Your task to perform on an android device: toggle show notifications on the lock screen Image 0: 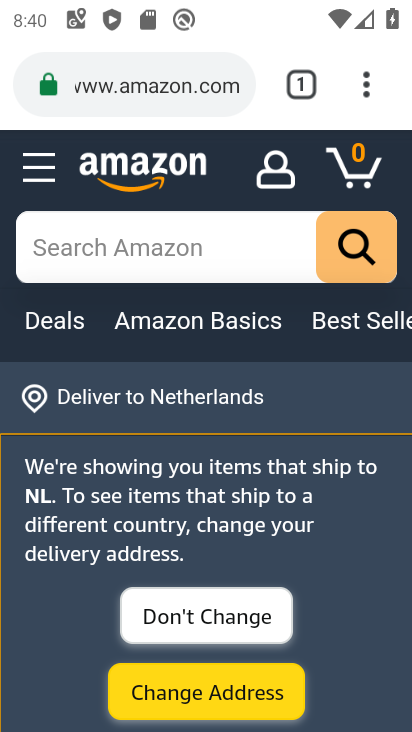
Step 0: press home button
Your task to perform on an android device: toggle show notifications on the lock screen Image 1: 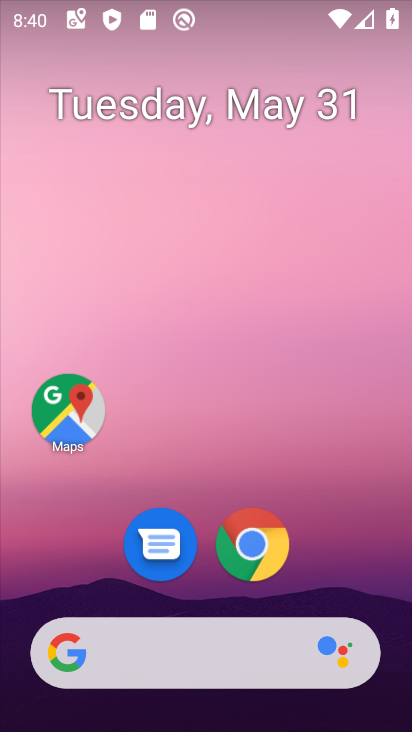
Step 1: drag from (322, 586) to (304, 58)
Your task to perform on an android device: toggle show notifications on the lock screen Image 2: 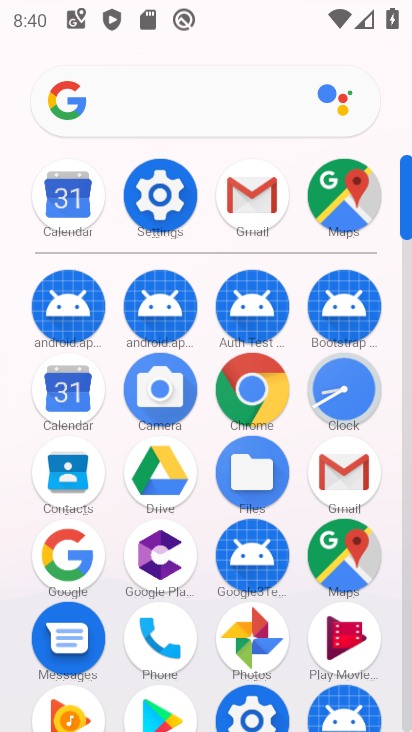
Step 2: click (148, 200)
Your task to perform on an android device: toggle show notifications on the lock screen Image 3: 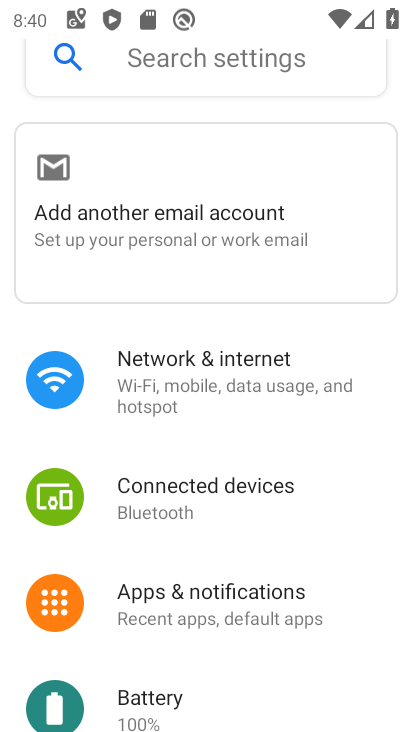
Step 3: click (156, 573)
Your task to perform on an android device: toggle show notifications on the lock screen Image 4: 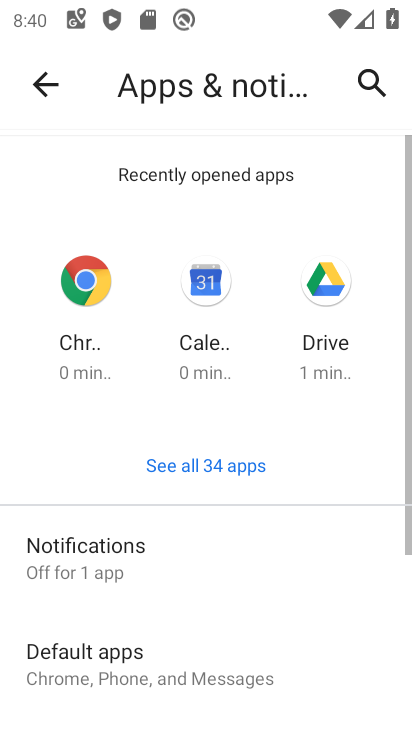
Step 4: click (149, 551)
Your task to perform on an android device: toggle show notifications on the lock screen Image 5: 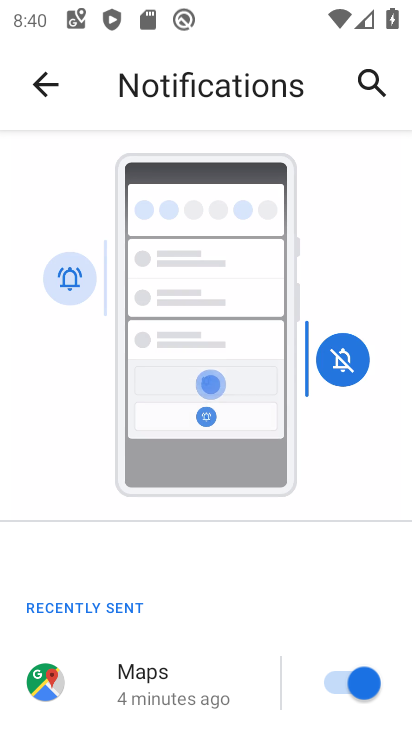
Step 5: drag from (155, 602) to (215, 86)
Your task to perform on an android device: toggle show notifications on the lock screen Image 6: 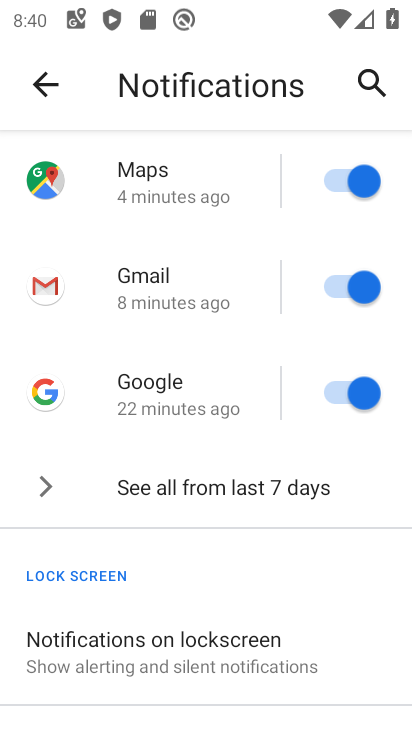
Step 6: drag from (208, 577) to (136, 229)
Your task to perform on an android device: toggle show notifications on the lock screen Image 7: 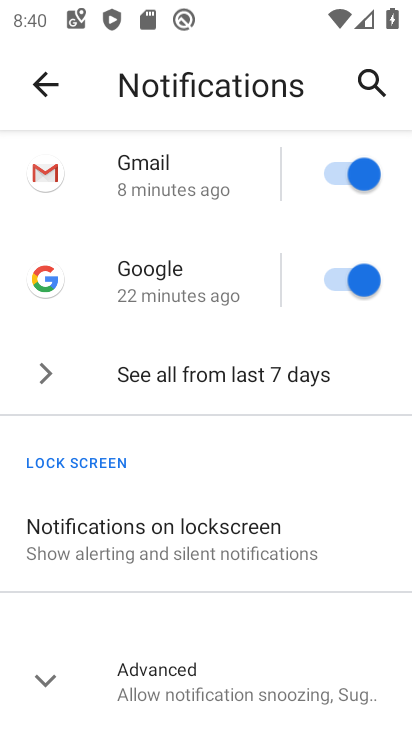
Step 7: click (190, 556)
Your task to perform on an android device: toggle show notifications on the lock screen Image 8: 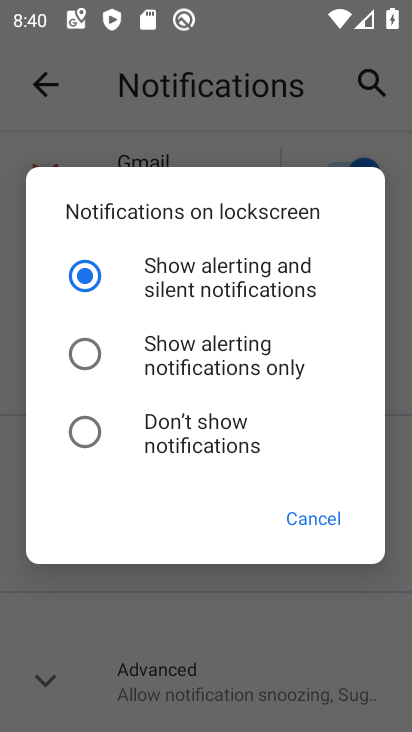
Step 8: click (160, 334)
Your task to perform on an android device: toggle show notifications on the lock screen Image 9: 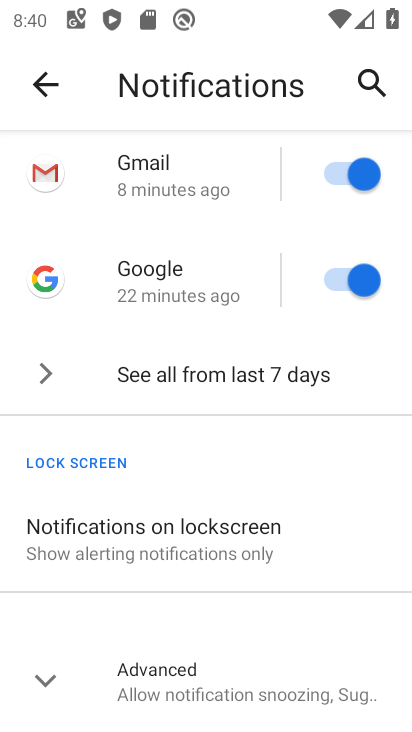
Step 9: task complete